Your task to perform on an android device: Open Wikipedia Image 0: 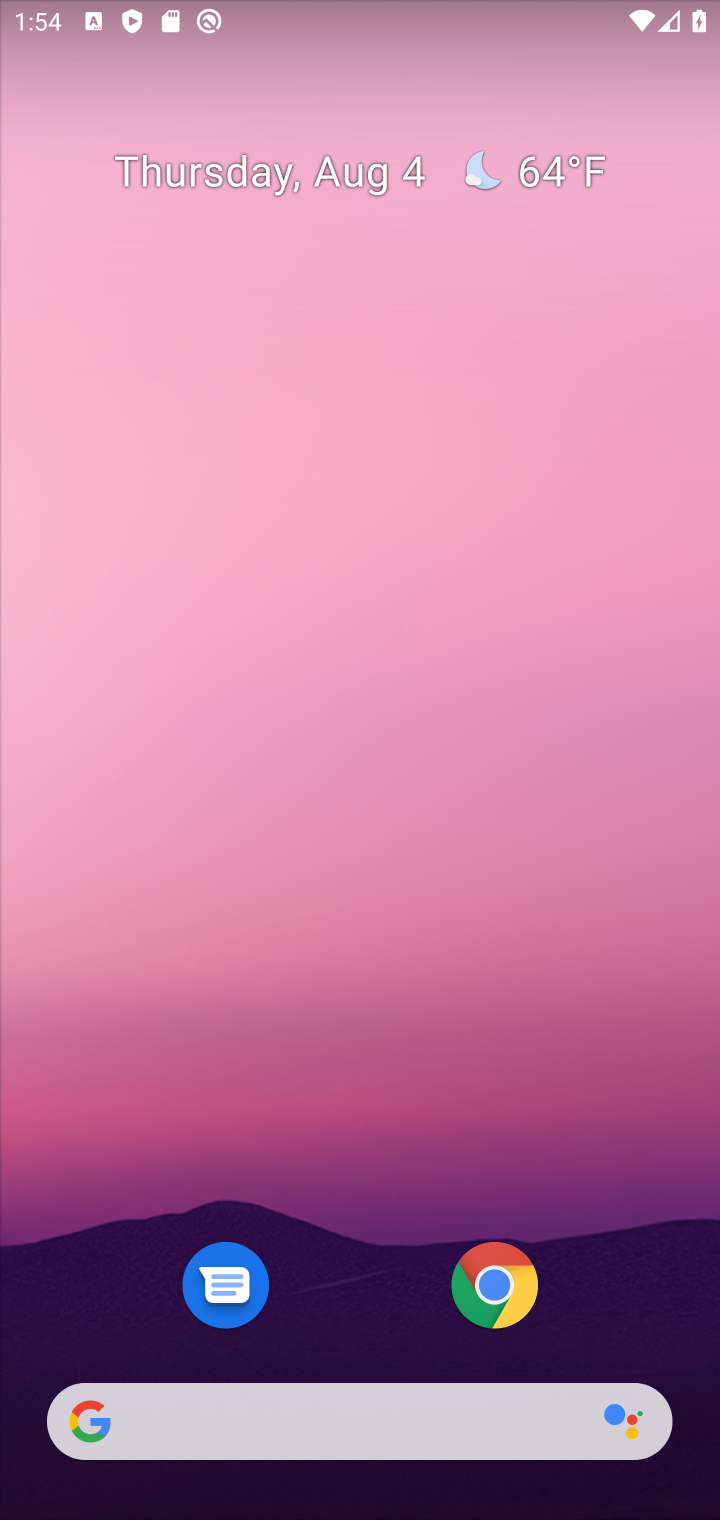
Step 0: click (498, 1284)
Your task to perform on an android device: Open Wikipedia Image 1: 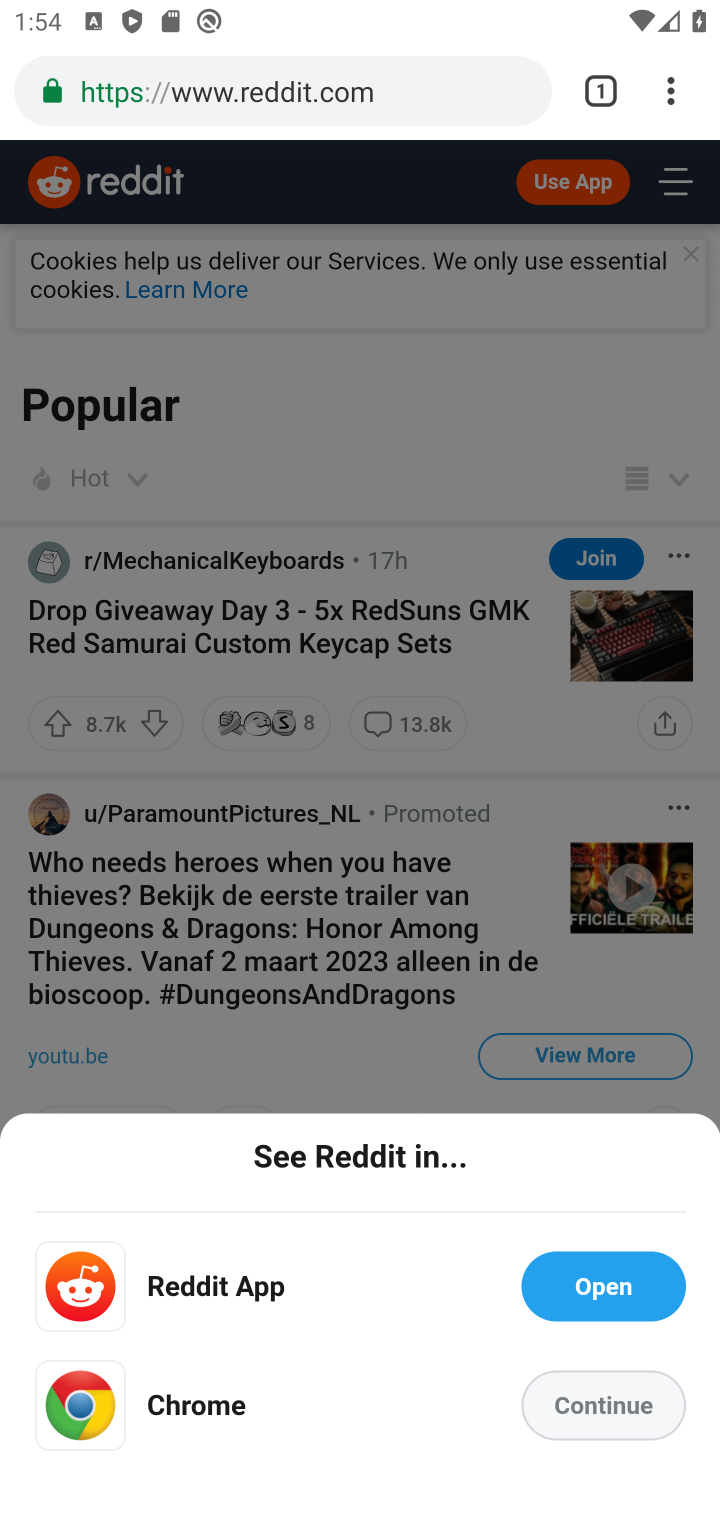
Step 1: click (448, 101)
Your task to perform on an android device: Open Wikipedia Image 2: 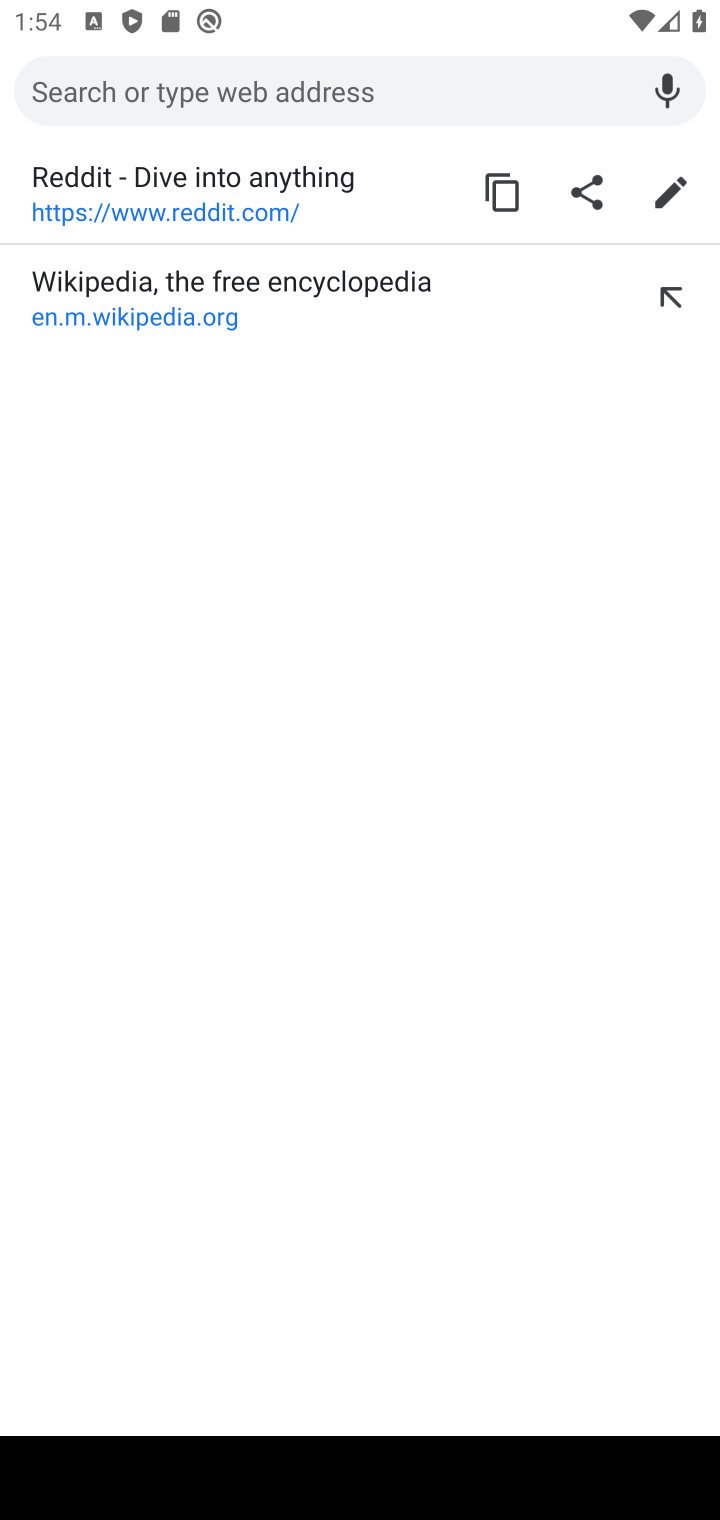
Step 2: type "wikipedia"
Your task to perform on an android device: Open Wikipedia Image 3: 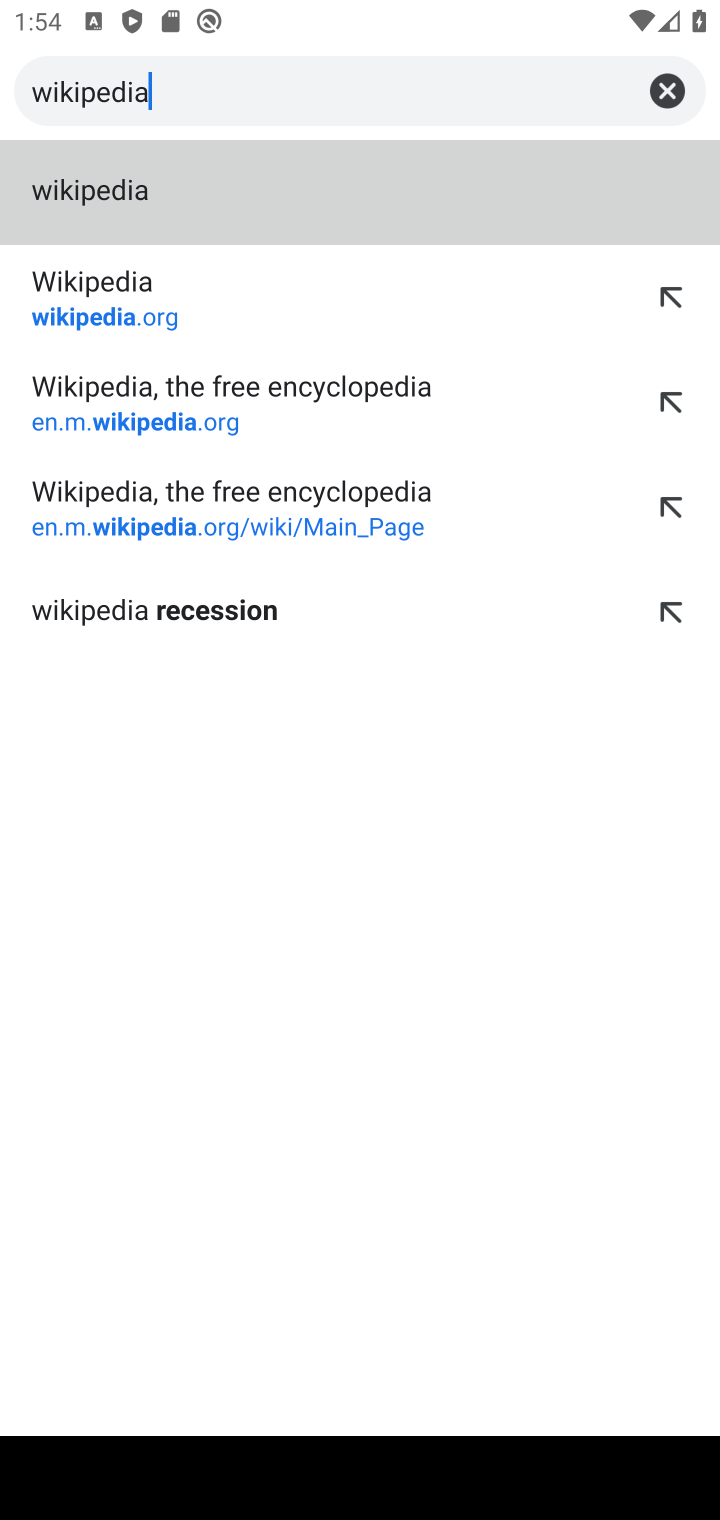
Step 3: click (106, 272)
Your task to perform on an android device: Open Wikipedia Image 4: 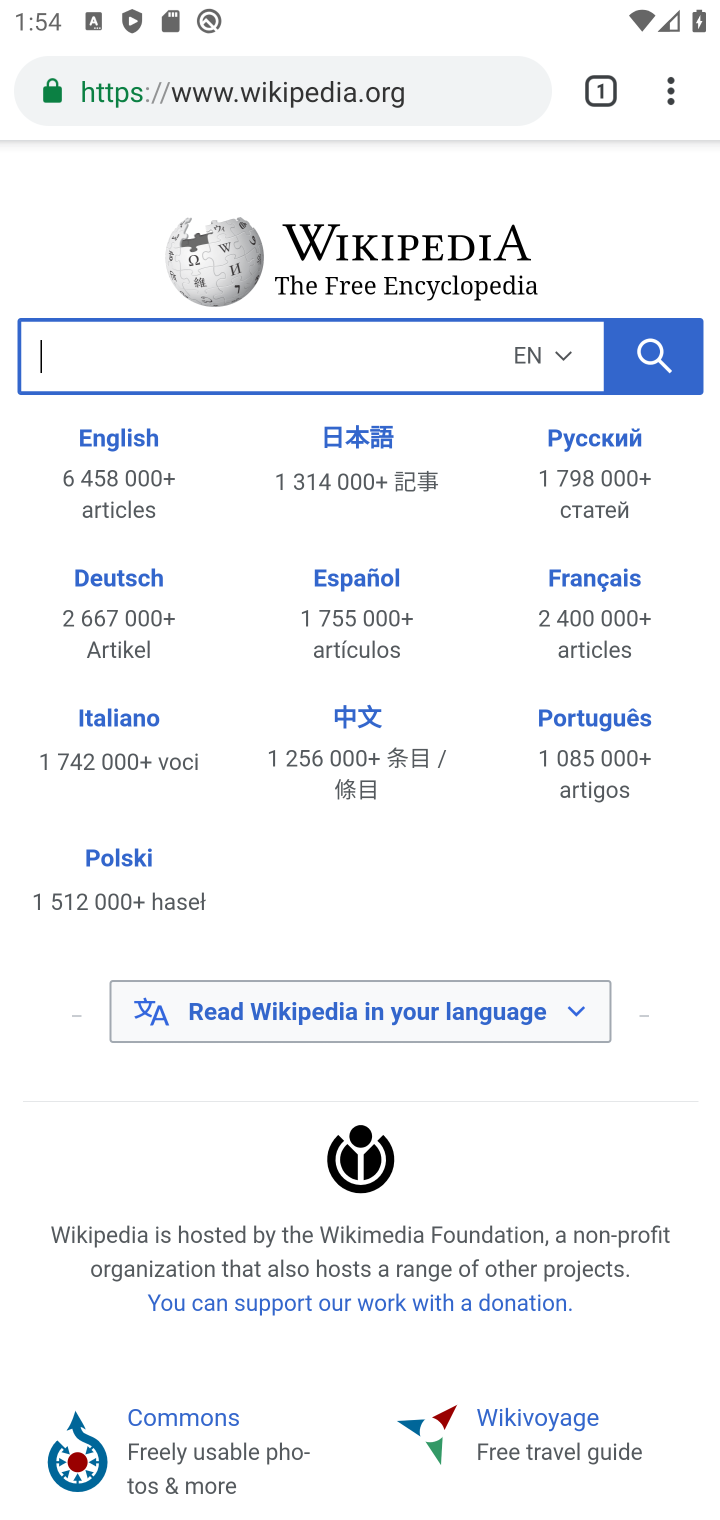
Step 4: task complete